Your task to perform on an android device: See recent photos Image 0: 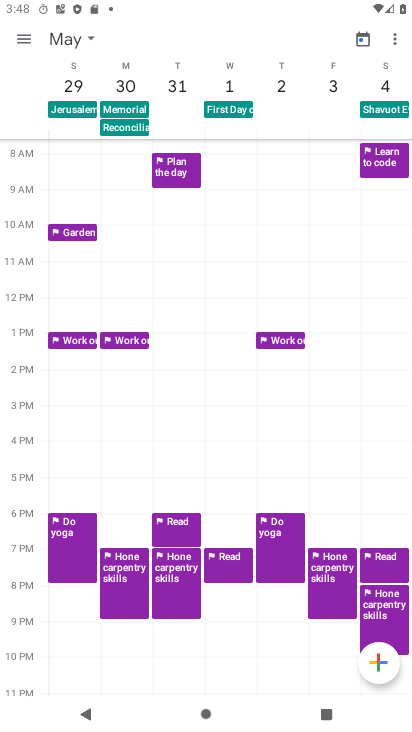
Step 0: press home button
Your task to perform on an android device: See recent photos Image 1: 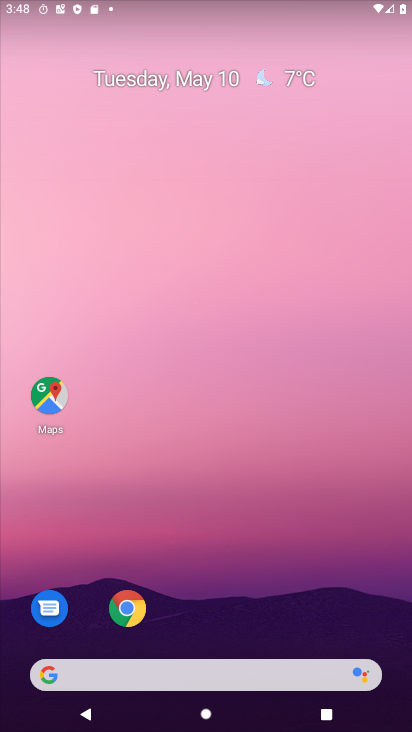
Step 1: drag from (232, 597) to (257, 41)
Your task to perform on an android device: See recent photos Image 2: 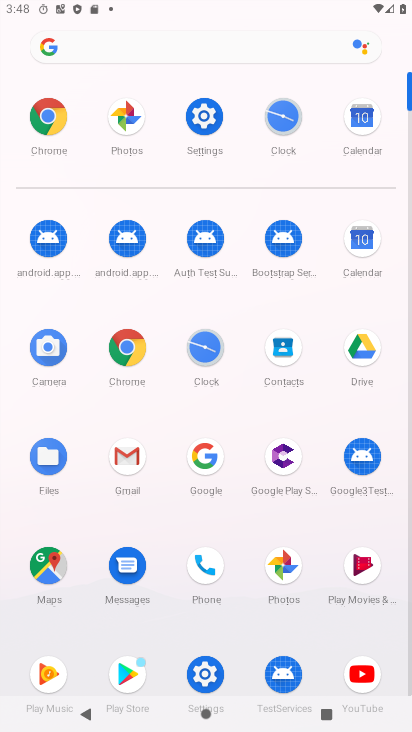
Step 2: click (124, 131)
Your task to perform on an android device: See recent photos Image 3: 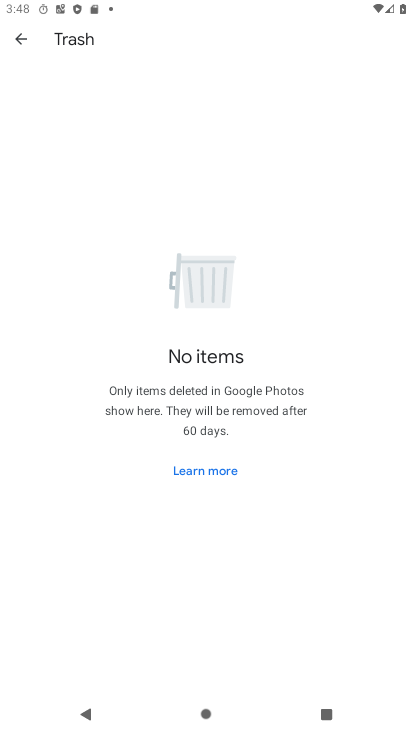
Step 3: click (13, 44)
Your task to perform on an android device: See recent photos Image 4: 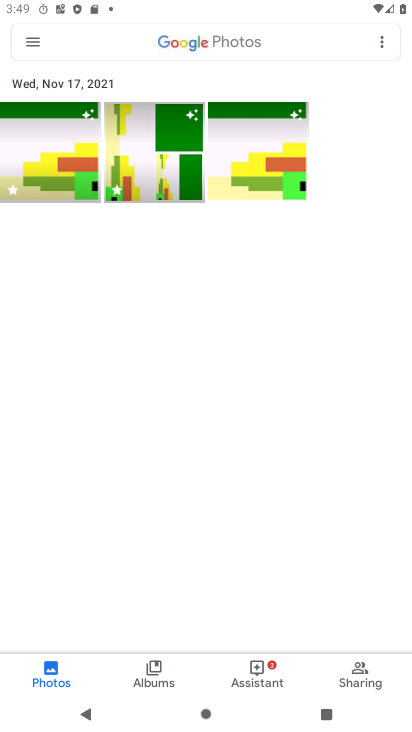
Step 4: drag from (184, 411) to (155, 264)
Your task to perform on an android device: See recent photos Image 5: 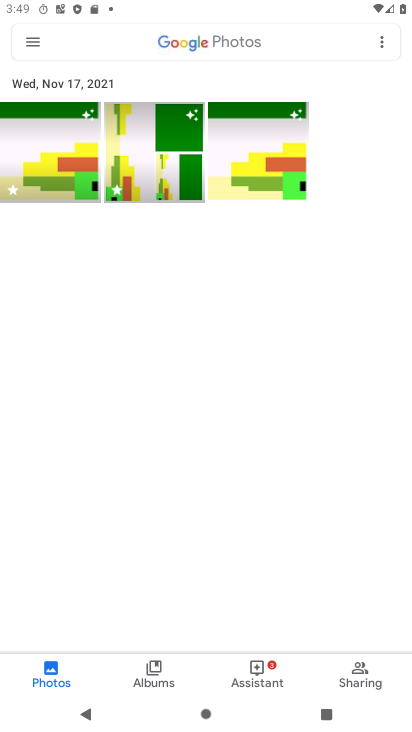
Step 5: click (25, 38)
Your task to perform on an android device: See recent photos Image 6: 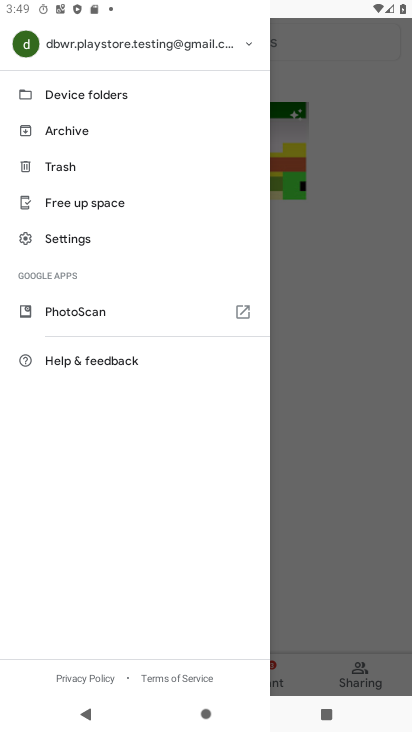
Step 6: task complete